Your task to perform on an android device: turn off priority inbox in the gmail app Image 0: 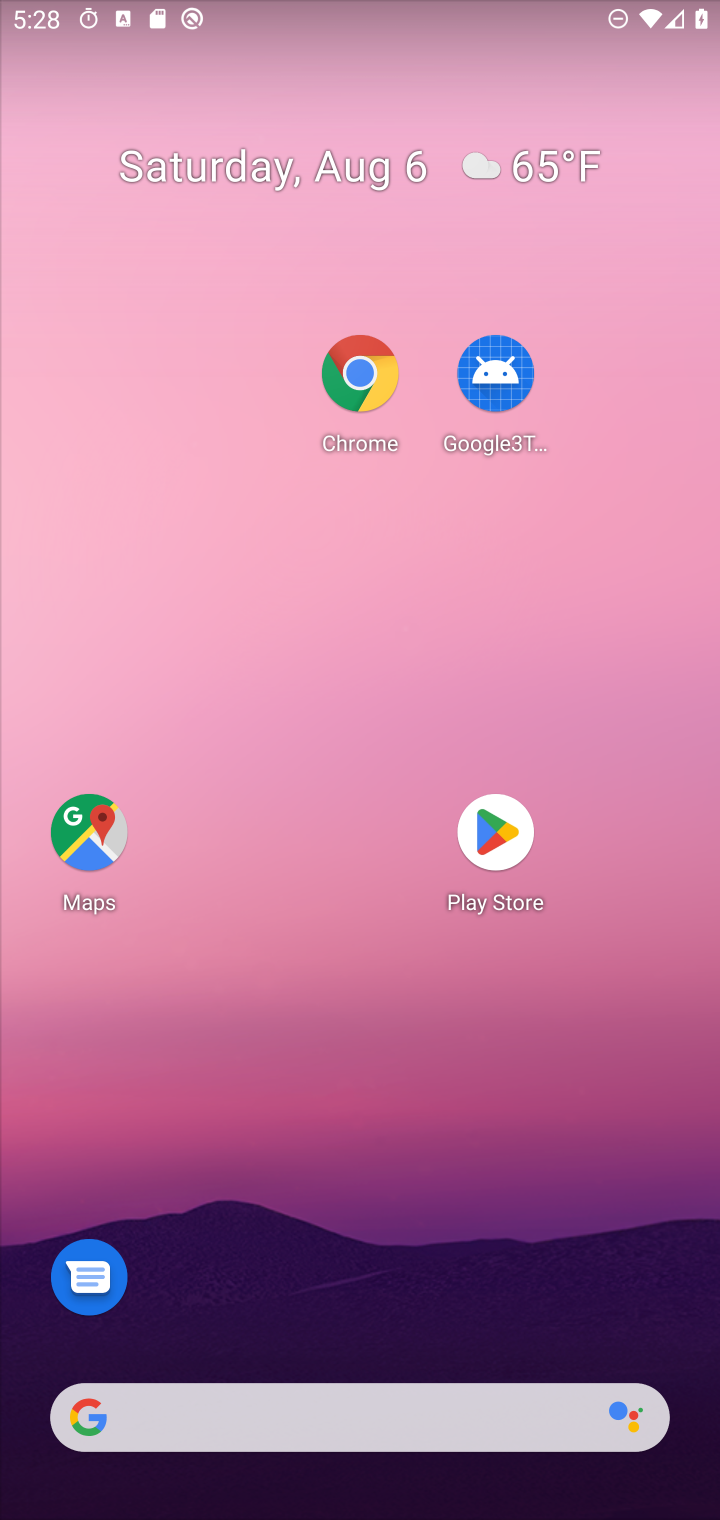
Step 0: drag from (434, 1110) to (489, 166)
Your task to perform on an android device: turn off priority inbox in the gmail app Image 1: 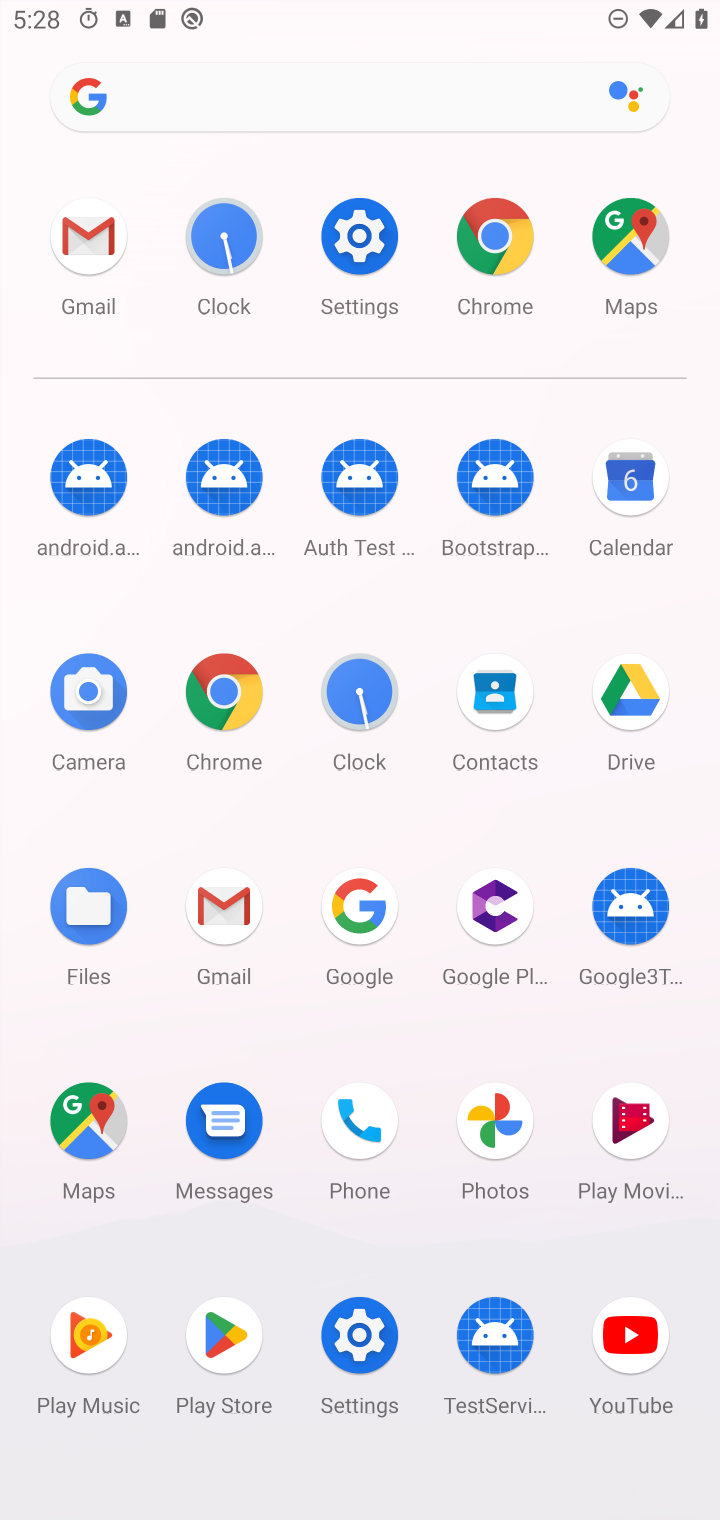
Step 1: click (239, 903)
Your task to perform on an android device: turn off priority inbox in the gmail app Image 2: 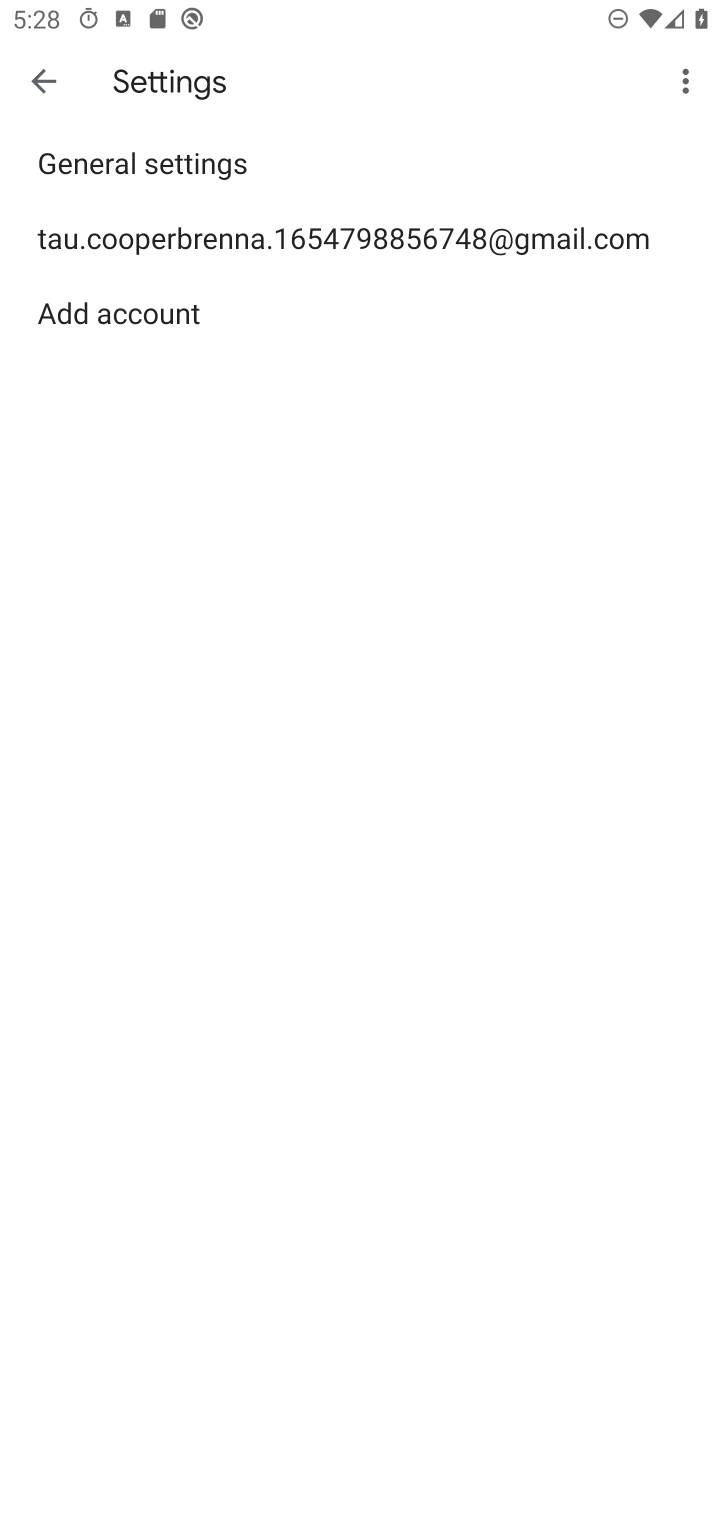
Step 2: click (314, 244)
Your task to perform on an android device: turn off priority inbox in the gmail app Image 3: 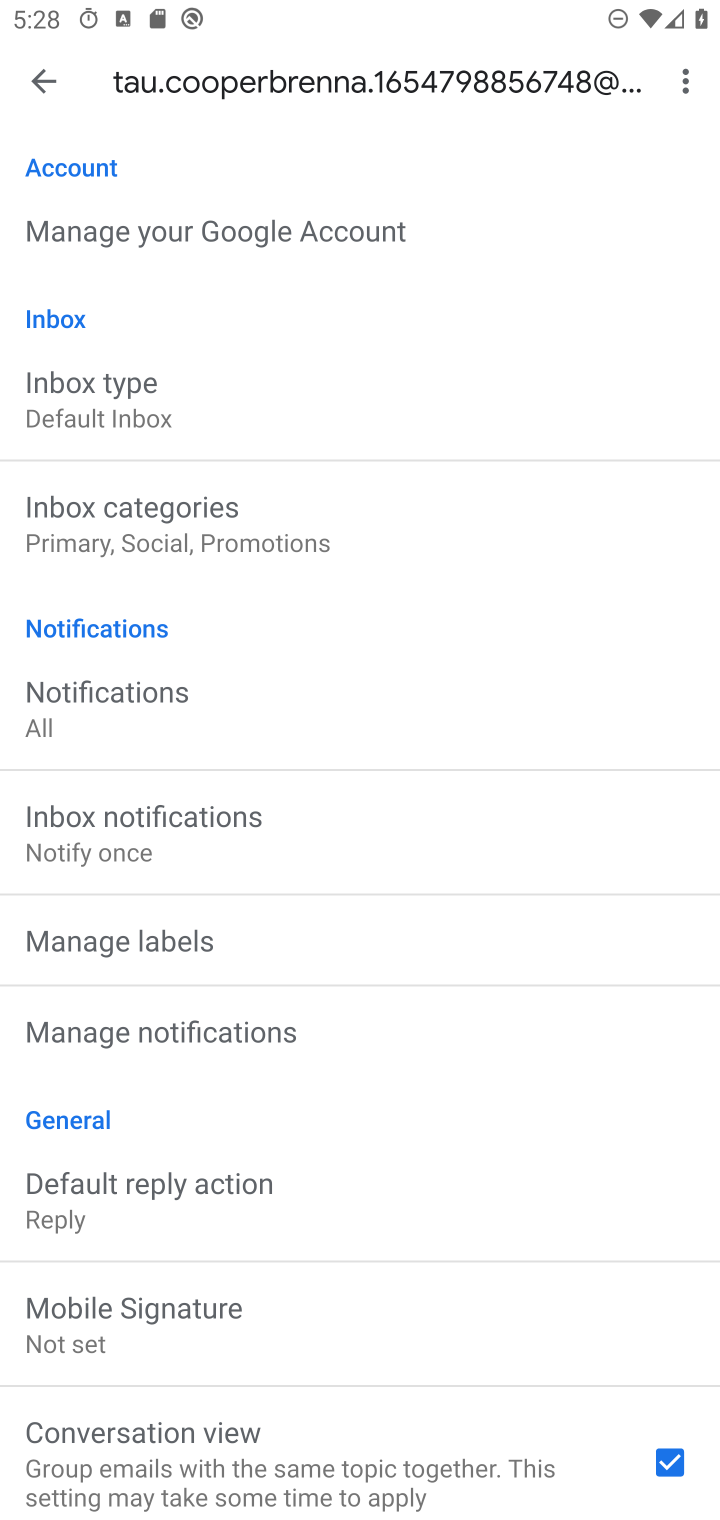
Step 3: click (167, 385)
Your task to perform on an android device: turn off priority inbox in the gmail app Image 4: 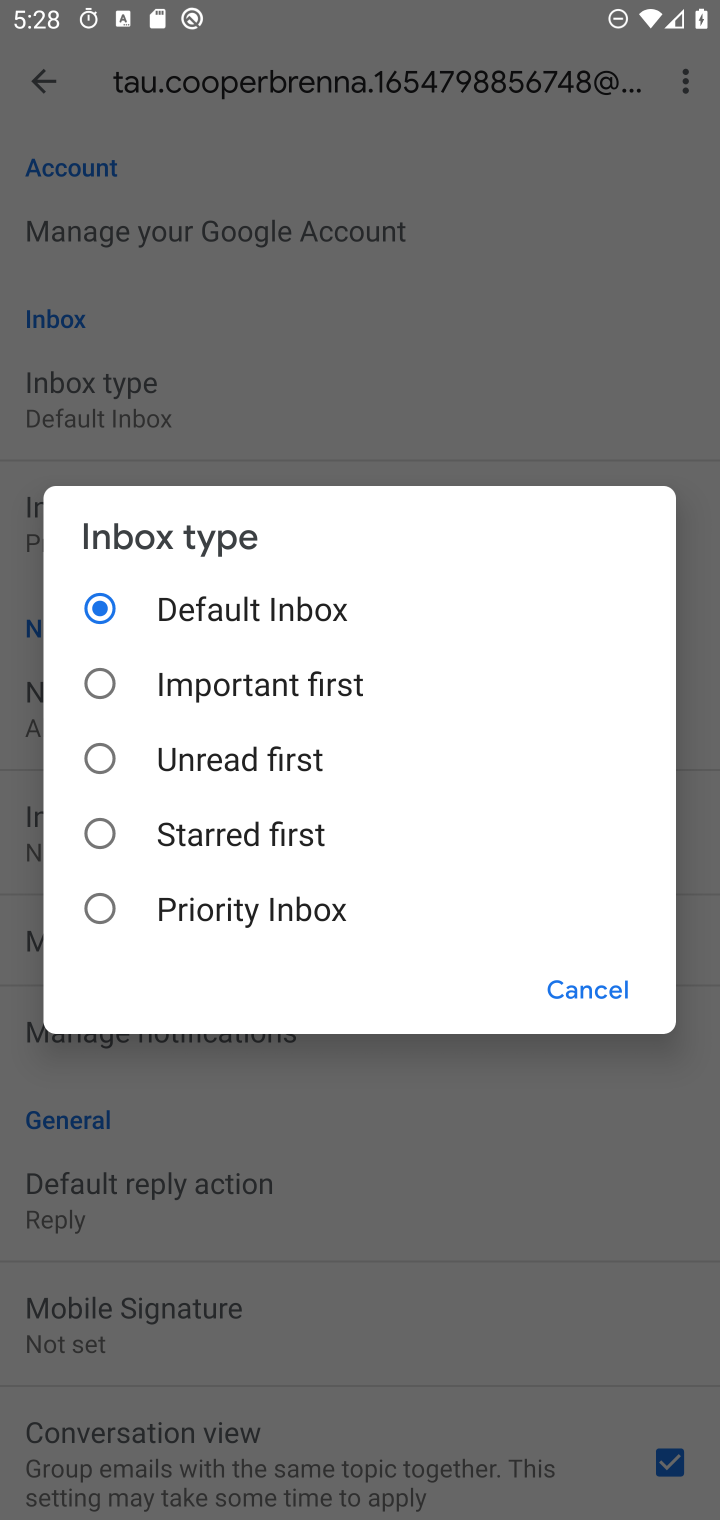
Step 4: task complete